Your task to perform on an android device: Open calendar and show me the fourth week of next month Image 0: 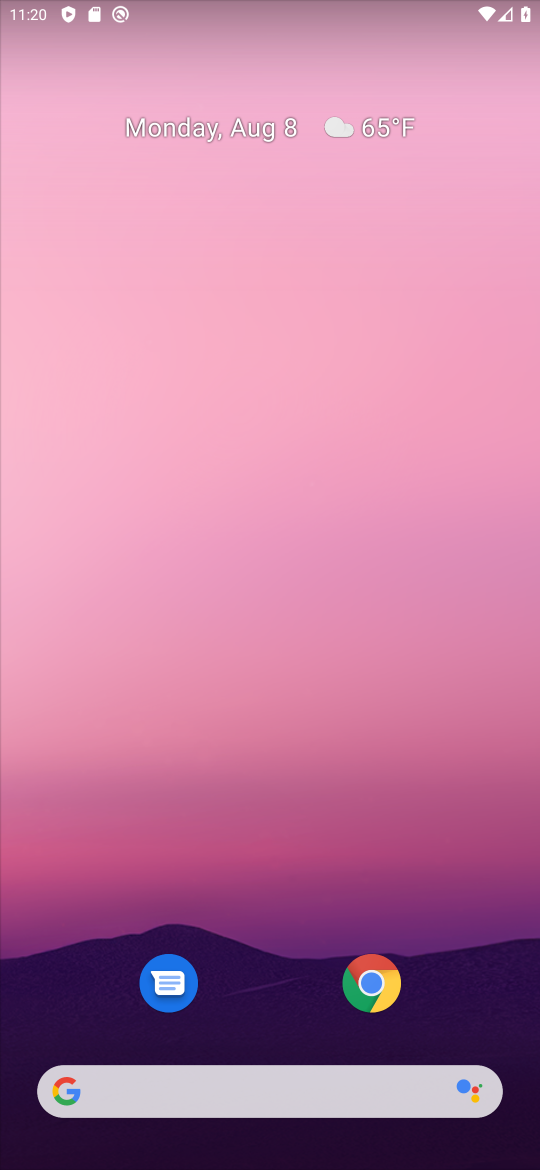
Step 0: task complete